Your task to perform on an android device: Show me the alarms in the clock app Image 0: 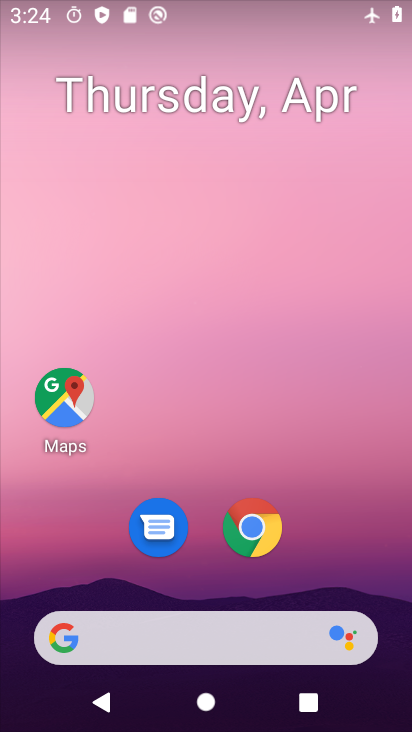
Step 0: drag from (343, 550) to (292, 165)
Your task to perform on an android device: Show me the alarms in the clock app Image 1: 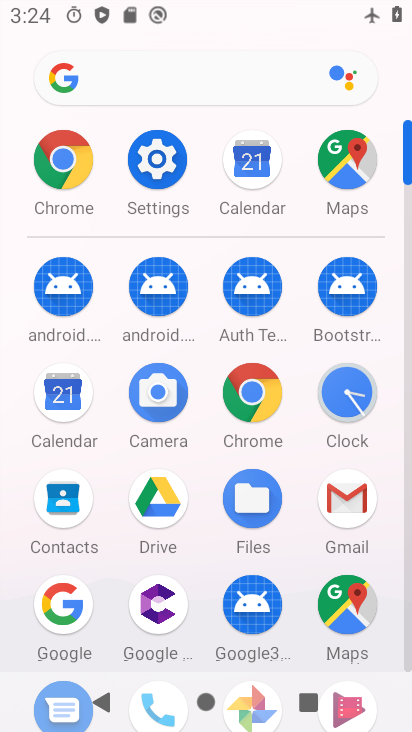
Step 1: click (348, 383)
Your task to perform on an android device: Show me the alarms in the clock app Image 2: 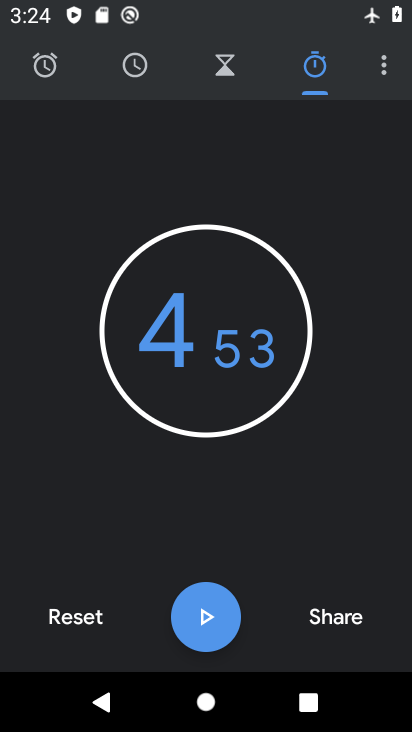
Step 2: click (46, 66)
Your task to perform on an android device: Show me the alarms in the clock app Image 3: 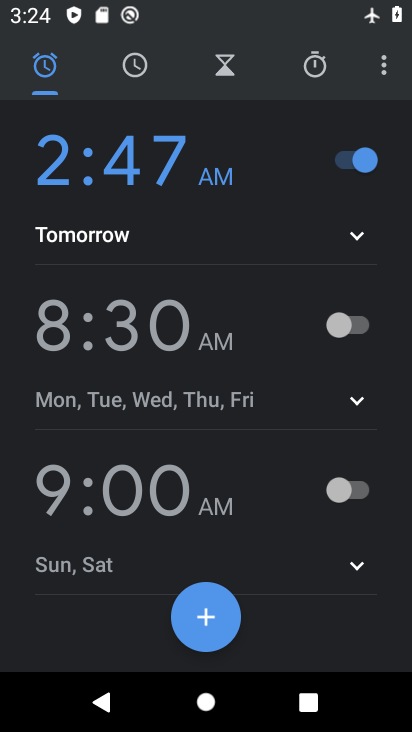
Step 3: task complete